Your task to perform on an android device: create a new album in the google photos Image 0: 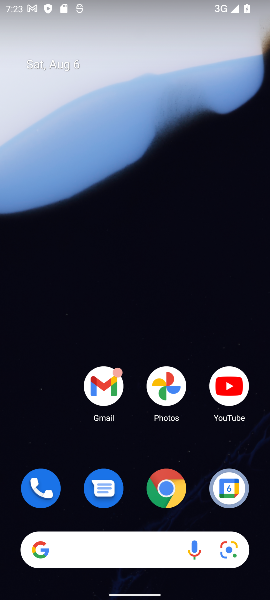
Step 0: click (153, 398)
Your task to perform on an android device: create a new album in the google photos Image 1: 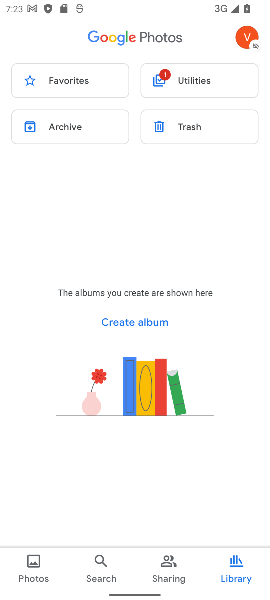
Step 1: click (227, 570)
Your task to perform on an android device: create a new album in the google photos Image 2: 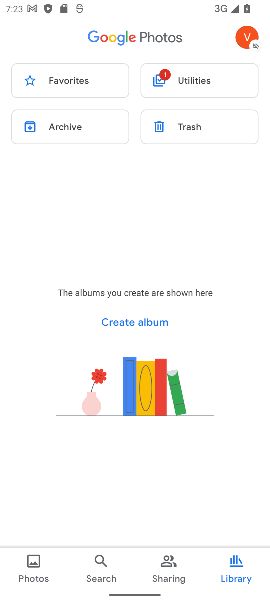
Step 2: click (42, 558)
Your task to perform on an android device: create a new album in the google photos Image 3: 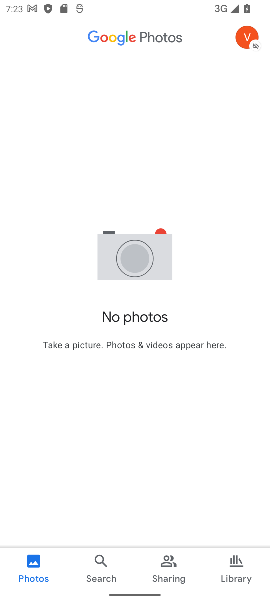
Step 3: task complete